Your task to perform on an android device: turn notification dots on Image 0: 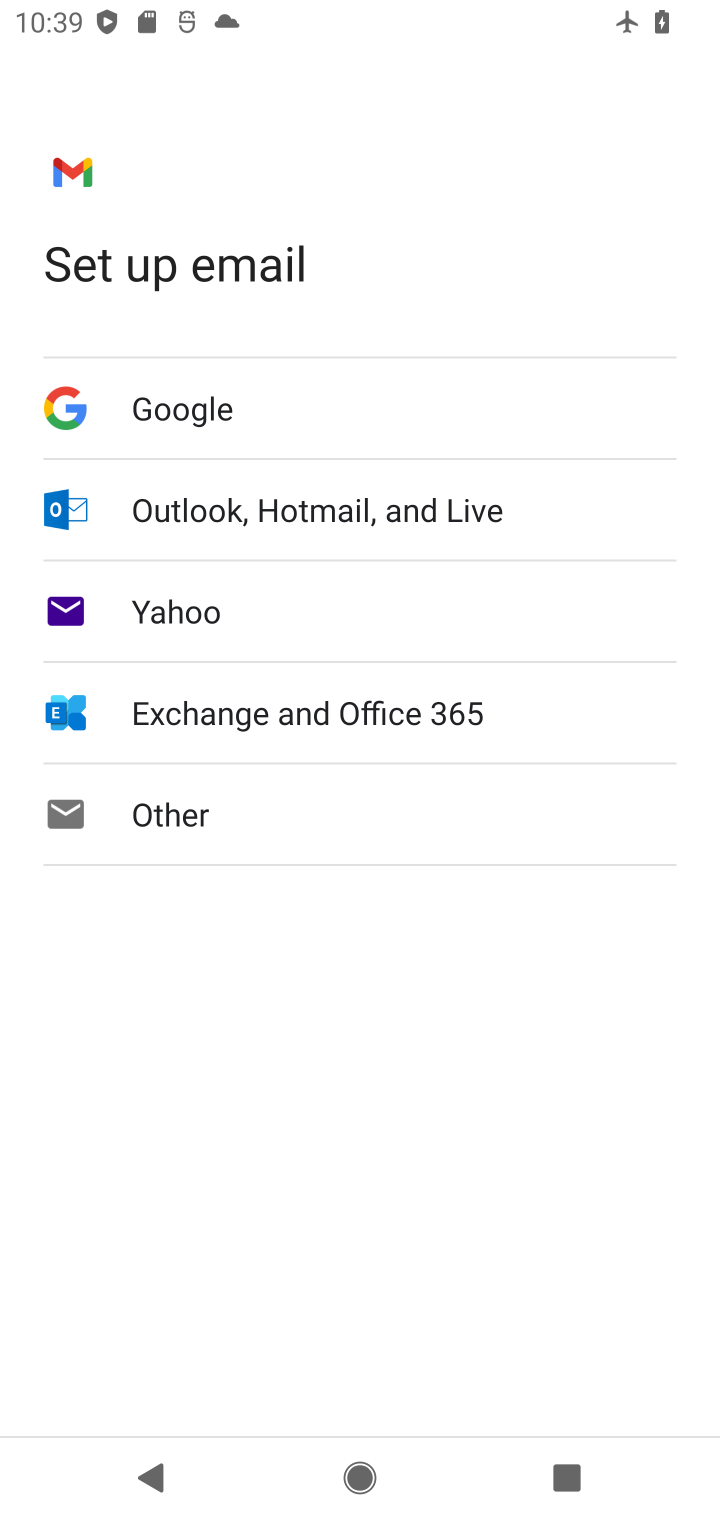
Step 0: press home button
Your task to perform on an android device: turn notification dots on Image 1: 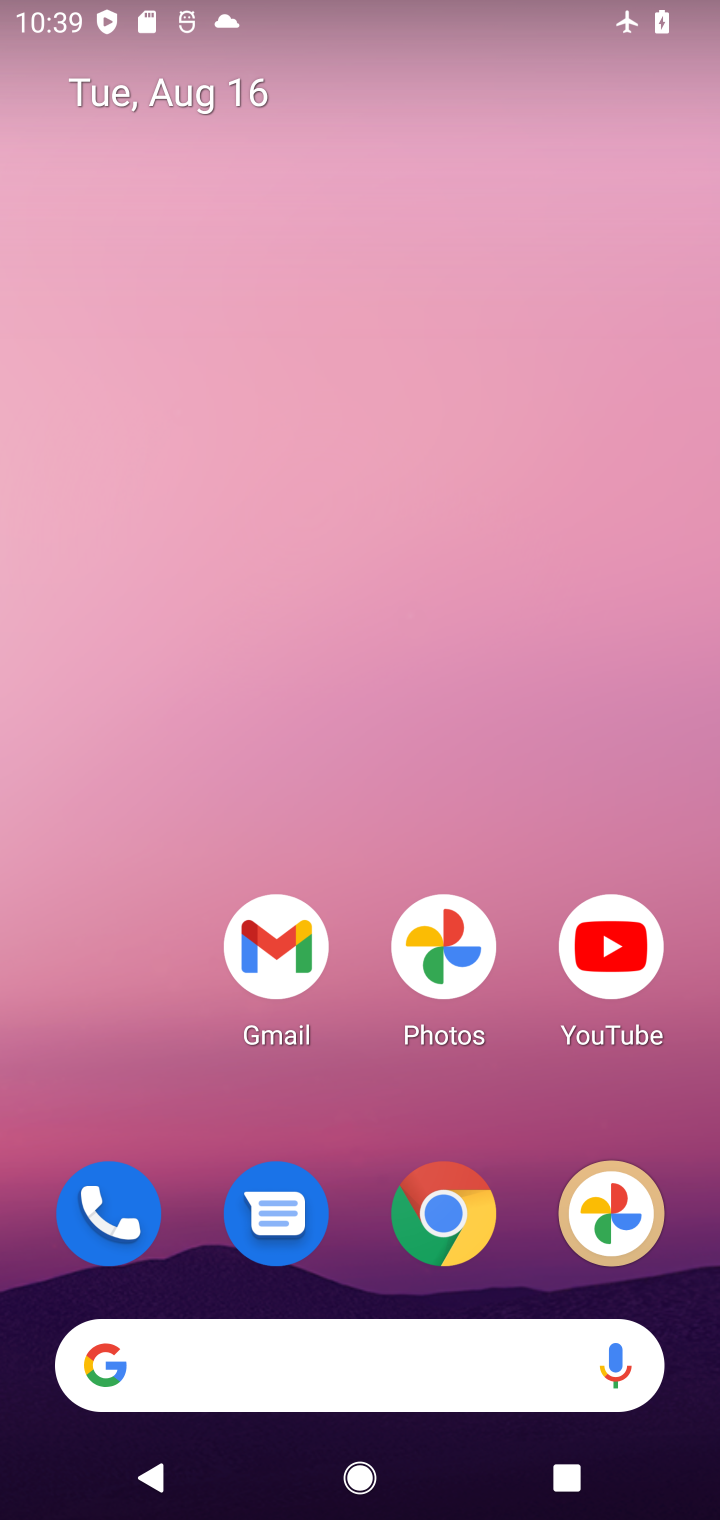
Step 1: drag from (310, 1021) to (217, 68)
Your task to perform on an android device: turn notification dots on Image 2: 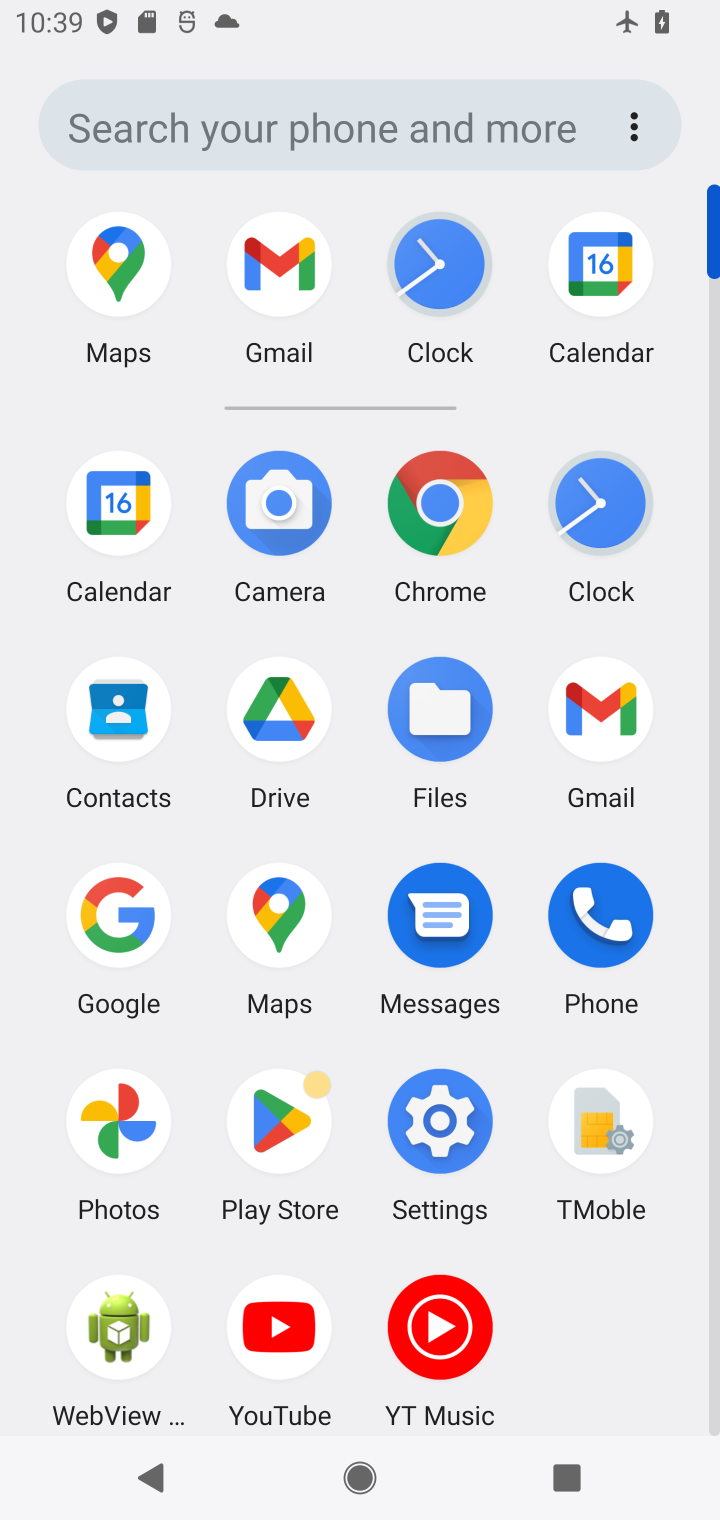
Step 2: click (442, 1122)
Your task to perform on an android device: turn notification dots on Image 3: 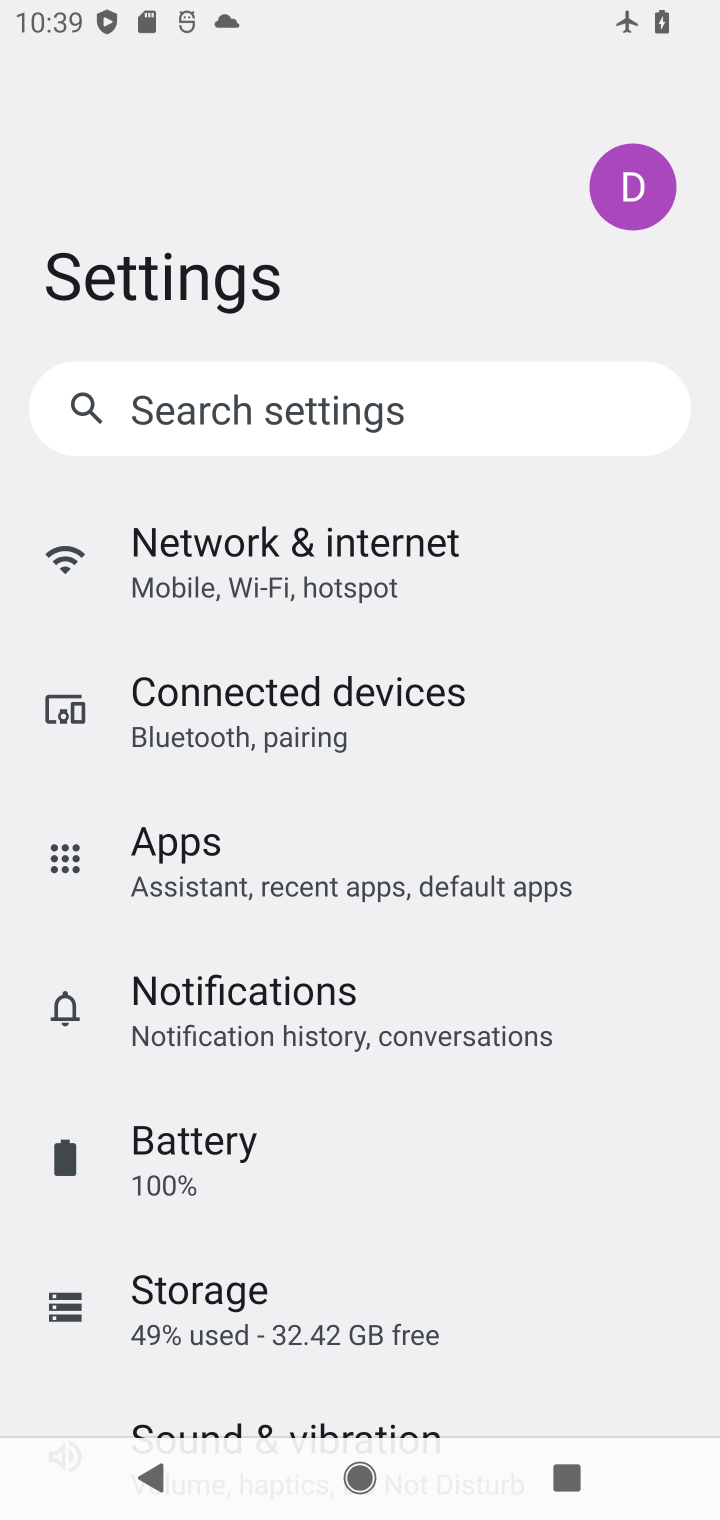
Step 3: click (453, 398)
Your task to perform on an android device: turn notification dots on Image 4: 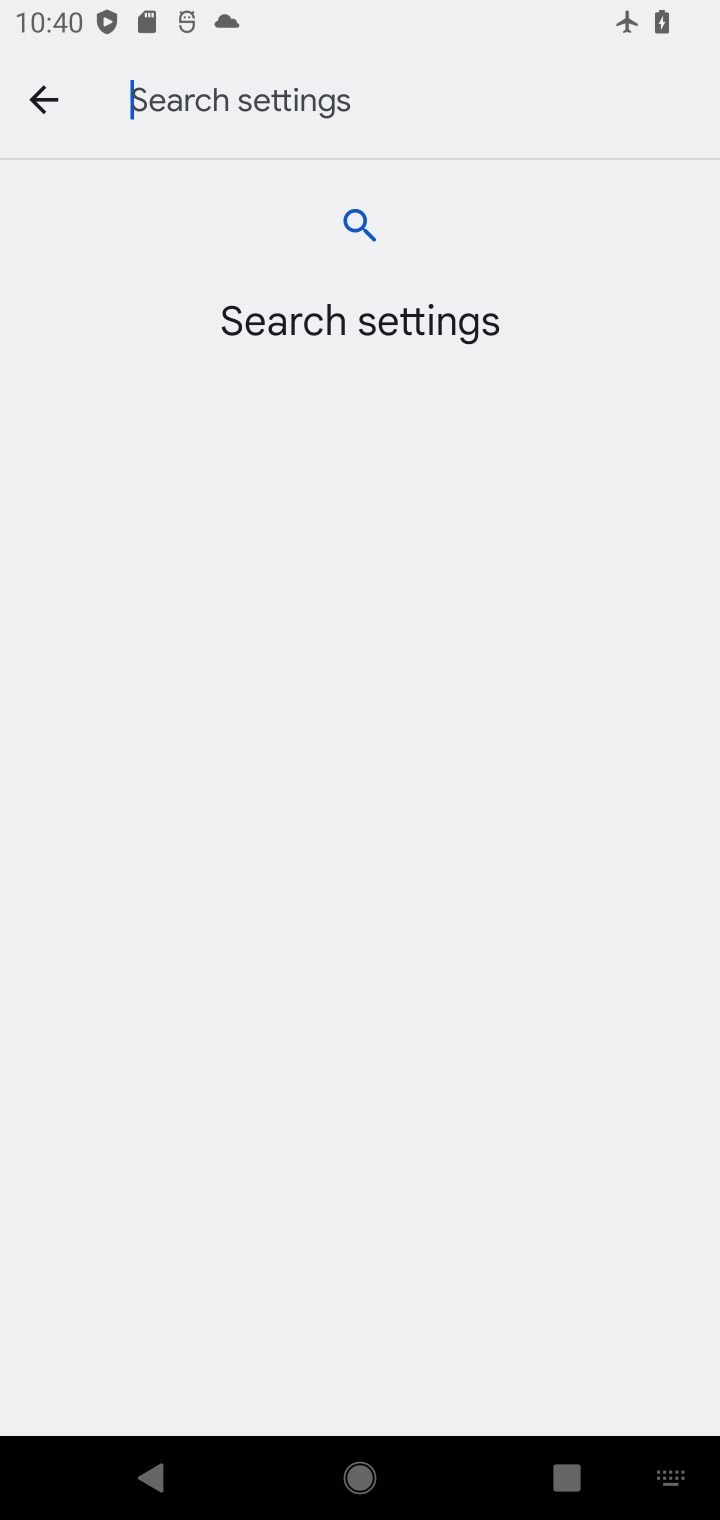
Step 4: click (437, 108)
Your task to perform on an android device: turn notification dots on Image 5: 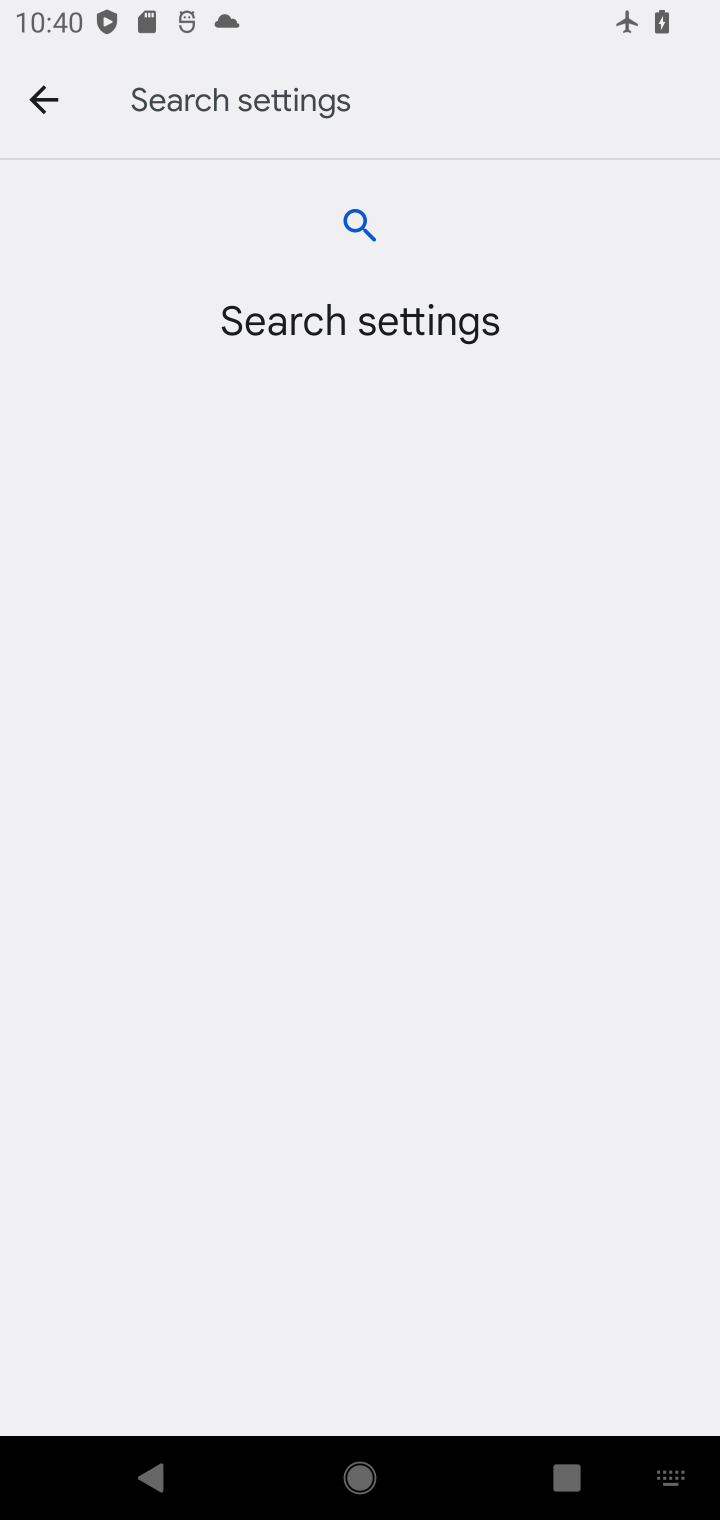
Step 5: type "notification dots "
Your task to perform on an android device: turn notification dots on Image 6: 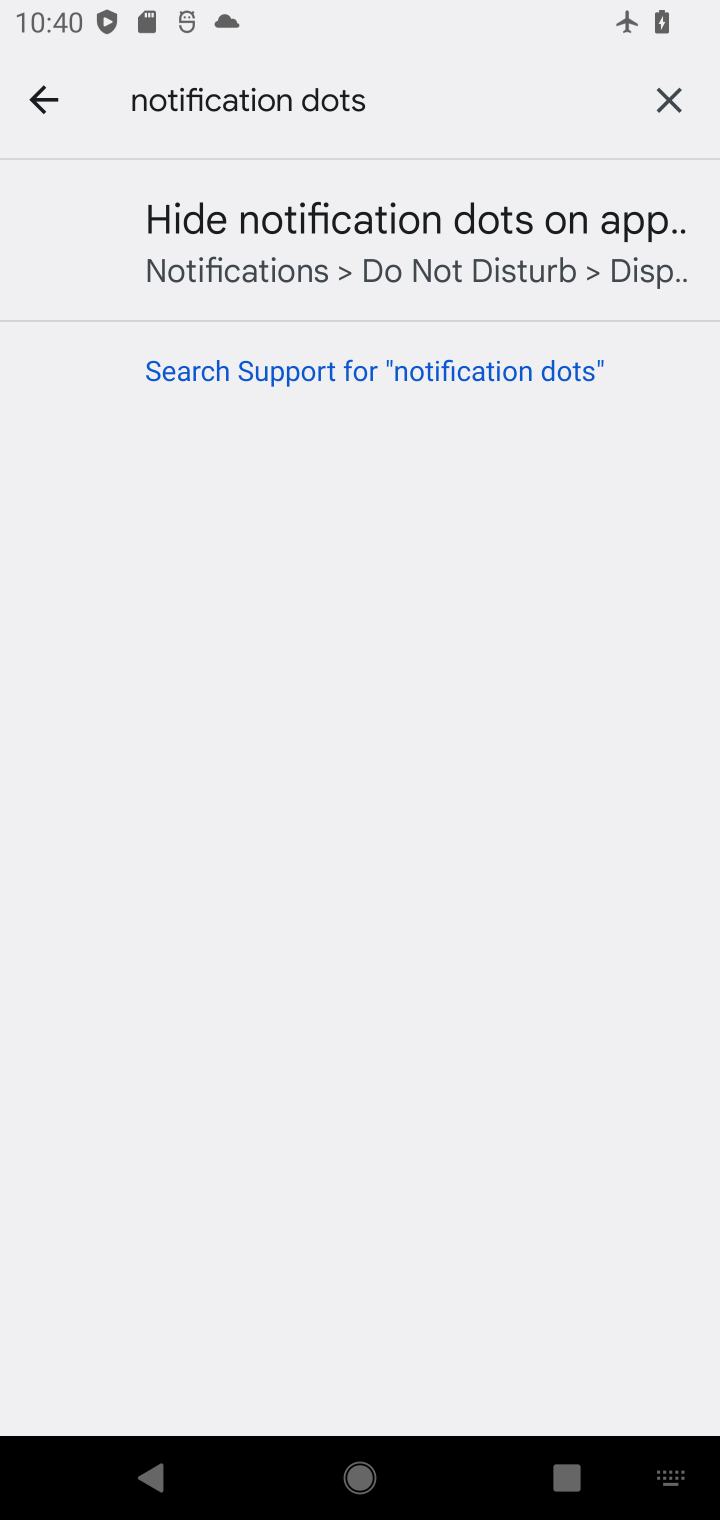
Step 6: click (445, 237)
Your task to perform on an android device: turn notification dots on Image 7: 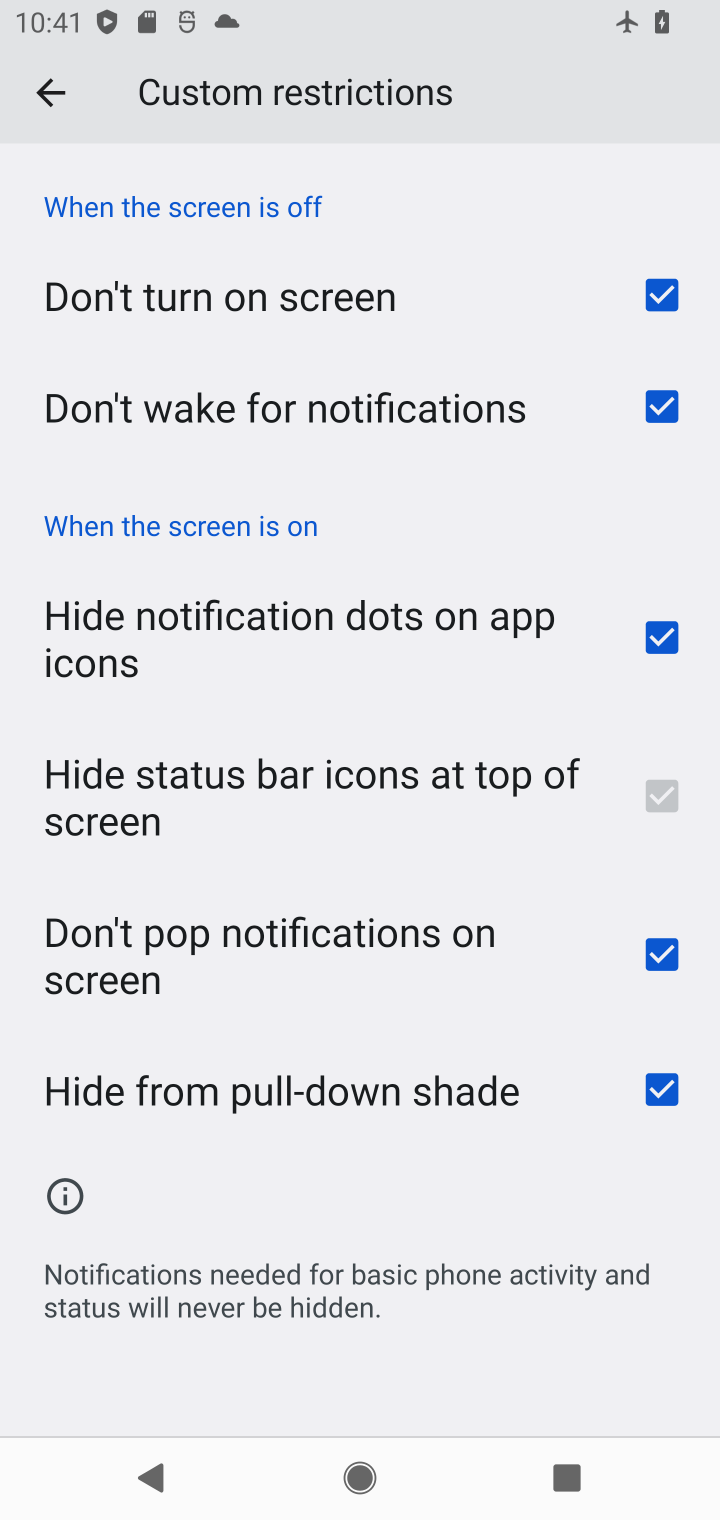
Step 7: task complete